Your task to perform on an android device: Open Amazon Image 0: 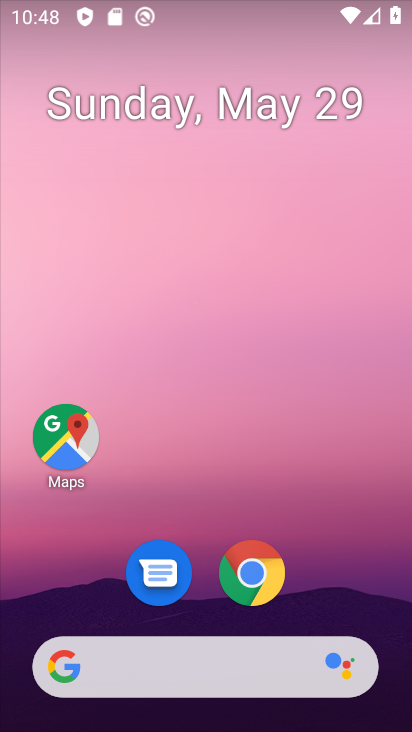
Step 0: click (157, 682)
Your task to perform on an android device: Open Amazon Image 1: 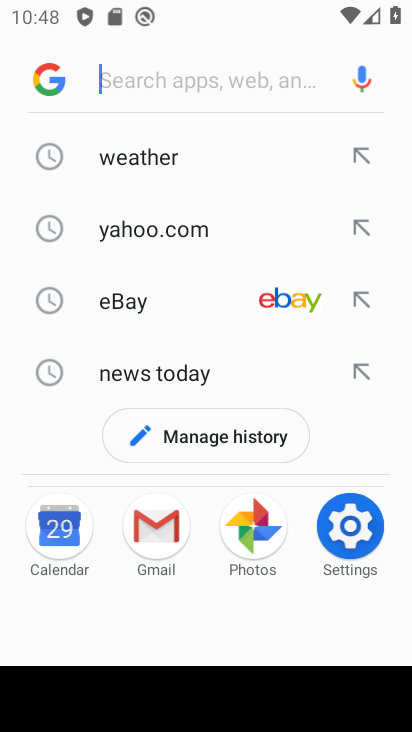
Step 1: type " Amazon"
Your task to perform on an android device: Open Amazon Image 2: 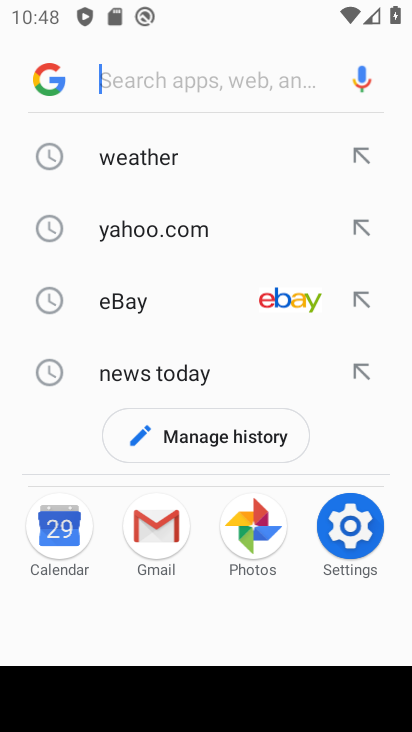
Step 2: click (136, 78)
Your task to perform on an android device: Open Amazon Image 3: 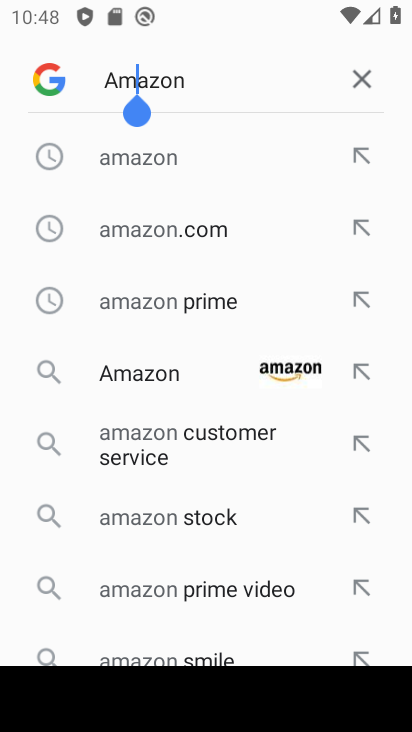
Step 3: click (150, 369)
Your task to perform on an android device: Open Amazon Image 4: 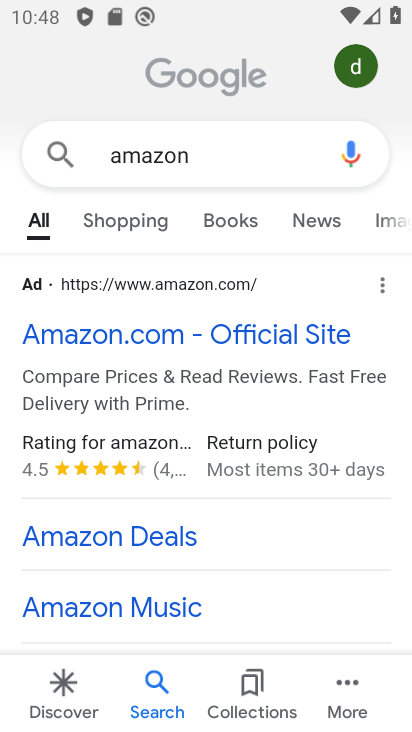
Step 4: drag from (320, 661) to (281, 287)
Your task to perform on an android device: Open Amazon Image 5: 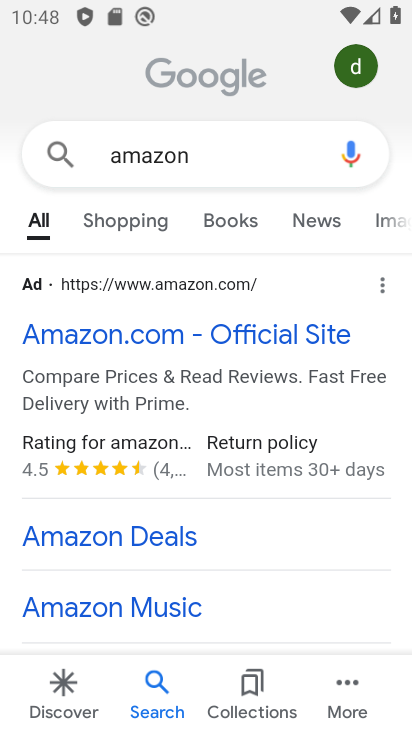
Step 5: drag from (335, 527) to (292, 179)
Your task to perform on an android device: Open Amazon Image 6: 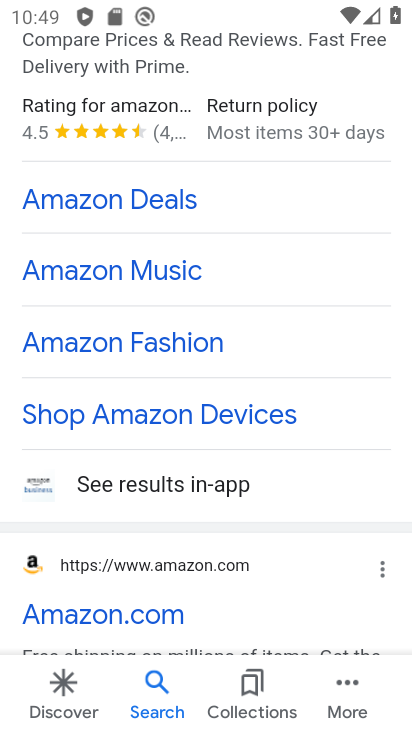
Step 6: click (134, 617)
Your task to perform on an android device: Open Amazon Image 7: 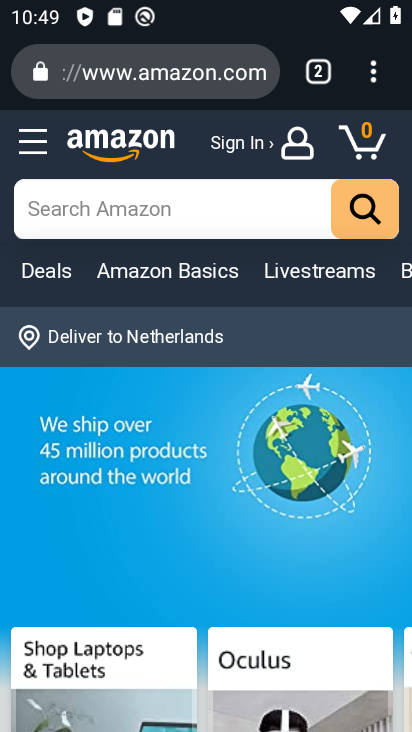
Step 7: task complete